Your task to perform on an android device: turn off smart reply in the gmail app Image 0: 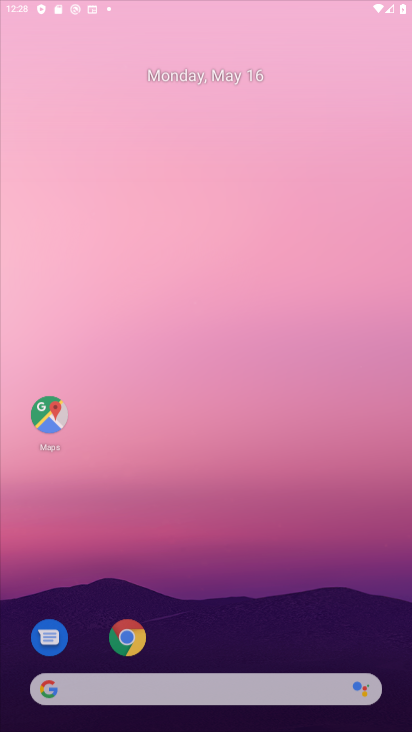
Step 0: drag from (205, 684) to (202, 140)
Your task to perform on an android device: turn off smart reply in the gmail app Image 1: 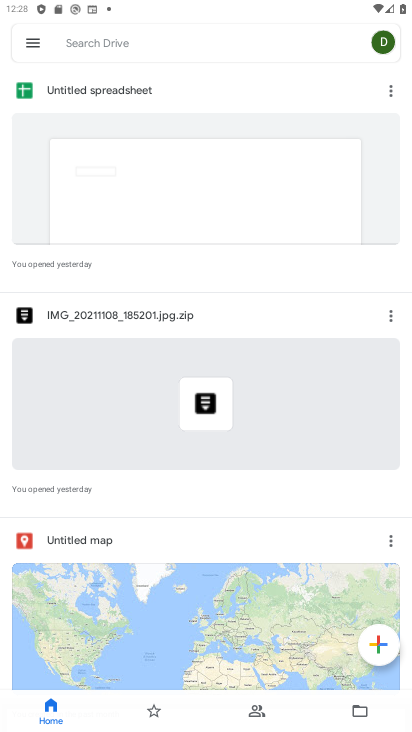
Step 1: press home button
Your task to perform on an android device: turn off smart reply in the gmail app Image 2: 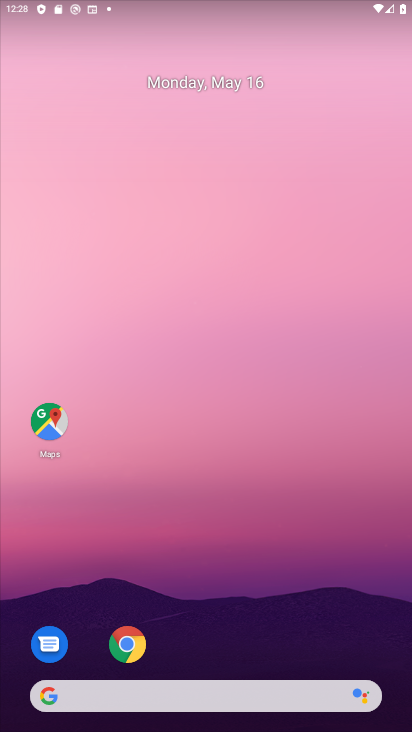
Step 2: drag from (217, 687) to (144, 14)
Your task to perform on an android device: turn off smart reply in the gmail app Image 3: 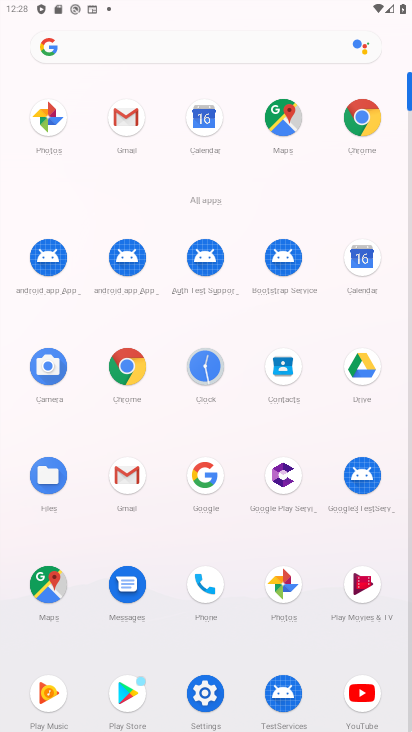
Step 3: click (141, 477)
Your task to perform on an android device: turn off smart reply in the gmail app Image 4: 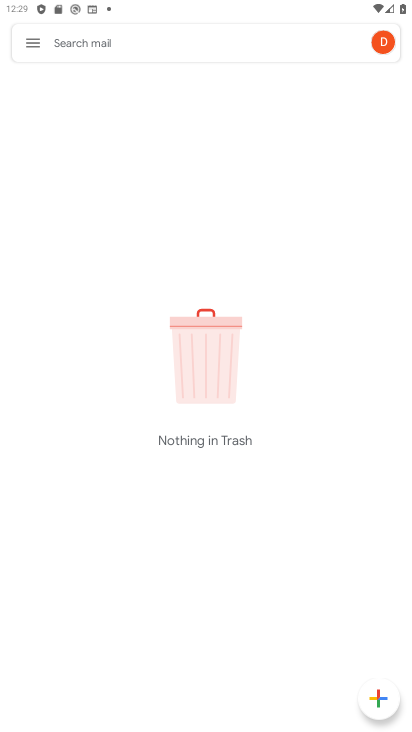
Step 4: click (33, 49)
Your task to perform on an android device: turn off smart reply in the gmail app Image 5: 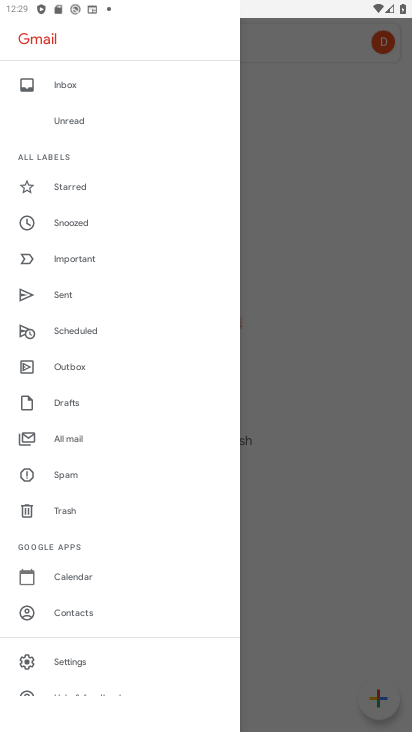
Step 5: click (97, 658)
Your task to perform on an android device: turn off smart reply in the gmail app Image 6: 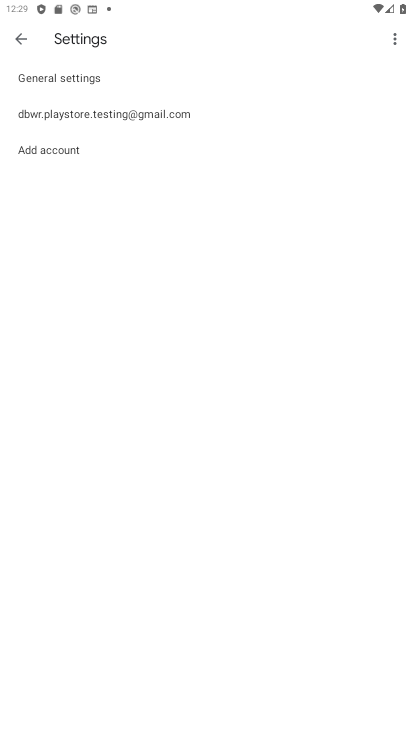
Step 6: click (135, 112)
Your task to perform on an android device: turn off smart reply in the gmail app Image 7: 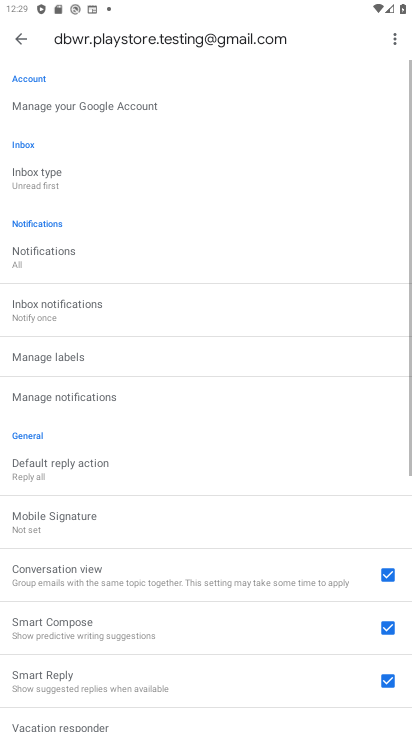
Step 7: drag from (202, 618) to (191, 273)
Your task to perform on an android device: turn off smart reply in the gmail app Image 8: 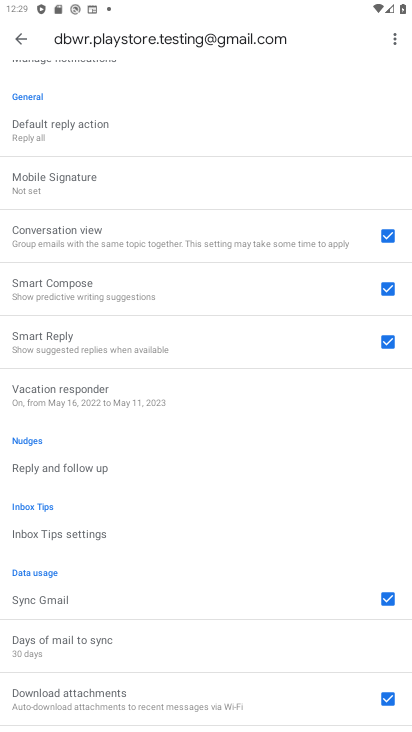
Step 8: click (386, 660)
Your task to perform on an android device: turn off smart reply in the gmail app Image 9: 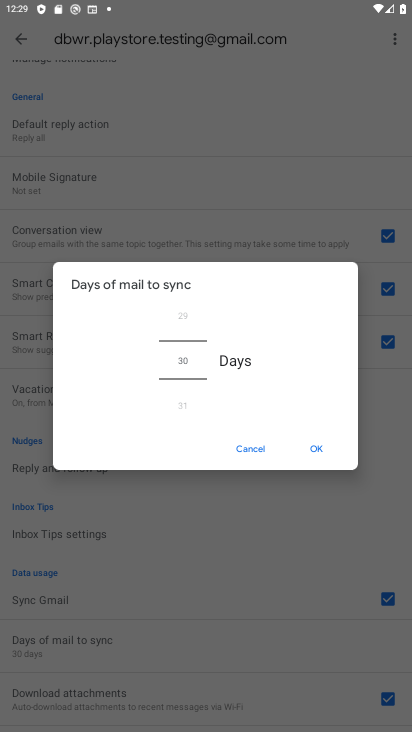
Step 9: click (320, 444)
Your task to perform on an android device: turn off smart reply in the gmail app Image 10: 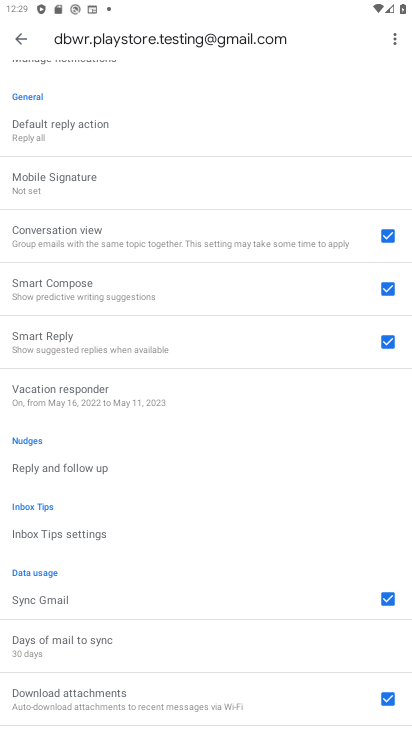
Step 10: task complete